Your task to perform on an android device: turn off sleep mode Image 0: 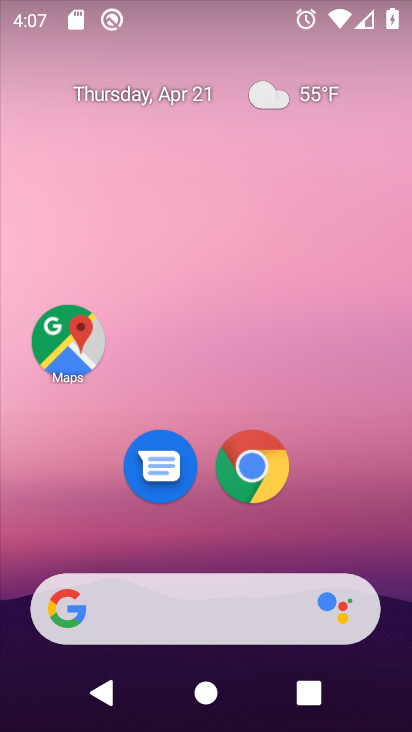
Step 0: drag from (223, 539) to (204, 53)
Your task to perform on an android device: turn off sleep mode Image 1: 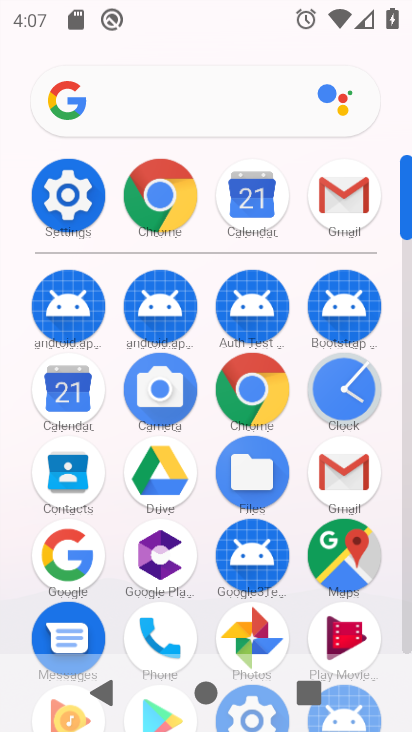
Step 1: click (69, 186)
Your task to perform on an android device: turn off sleep mode Image 2: 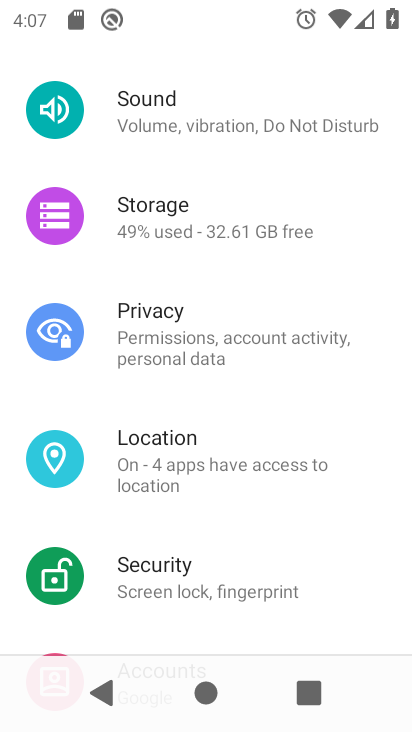
Step 2: drag from (271, 527) to (272, 145)
Your task to perform on an android device: turn off sleep mode Image 3: 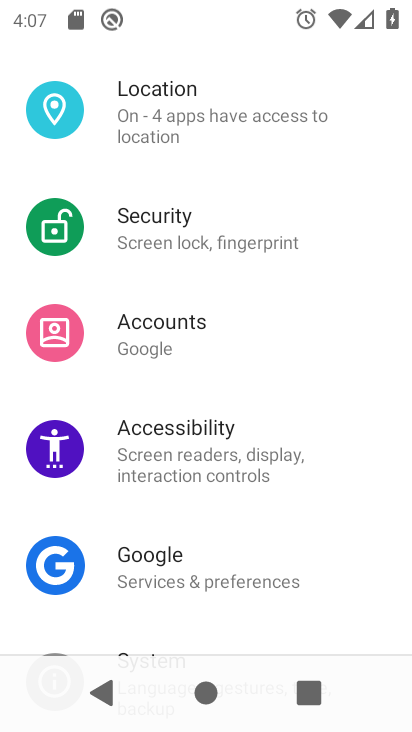
Step 3: drag from (302, 520) to (282, 146)
Your task to perform on an android device: turn off sleep mode Image 4: 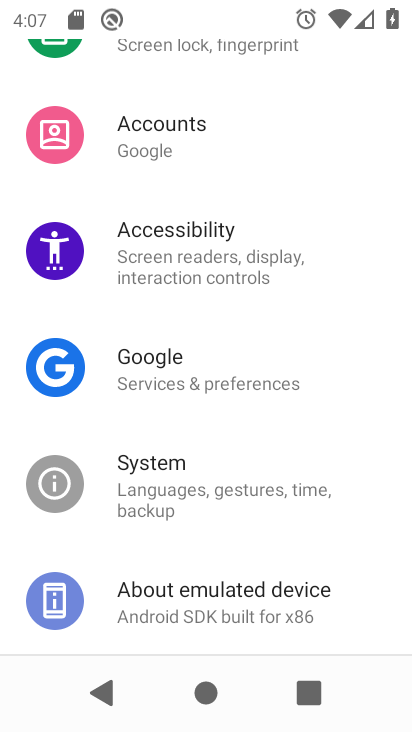
Step 4: drag from (287, 209) to (349, 694)
Your task to perform on an android device: turn off sleep mode Image 5: 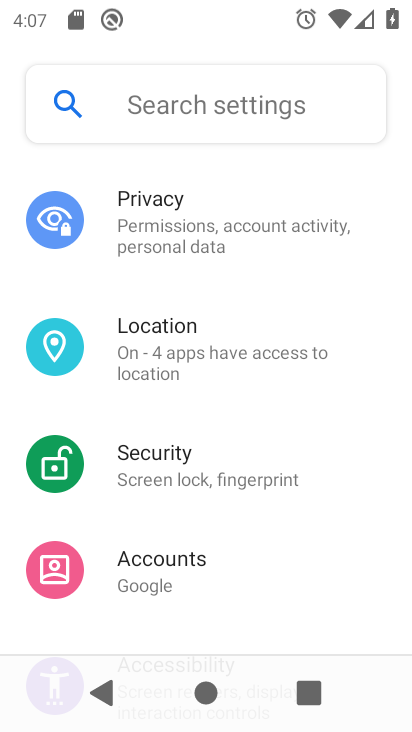
Step 5: drag from (265, 238) to (310, 655)
Your task to perform on an android device: turn off sleep mode Image 6: 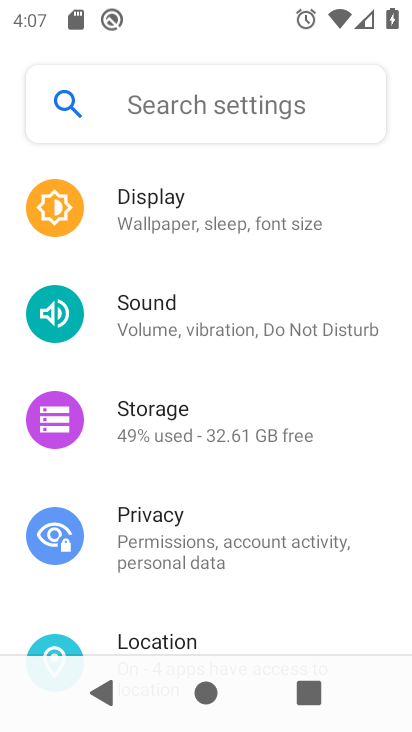
Step 6: click (285, 220)
Your task to perform on an android device: turn off sleep mode Image 7: 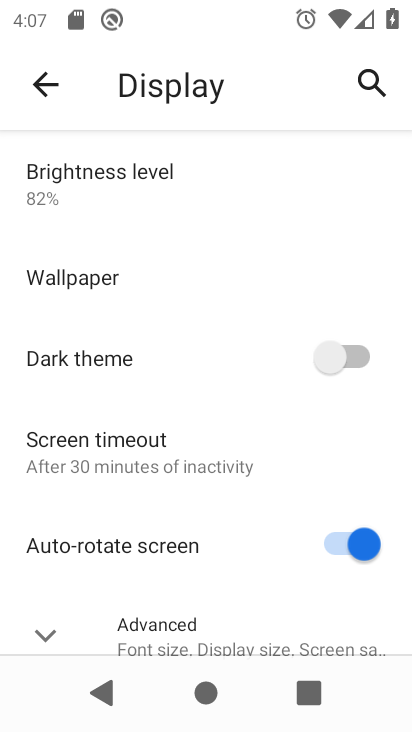
Step 7: click (237, 460)
Your task to perform on an android device: turn off sleep mode Image 8: 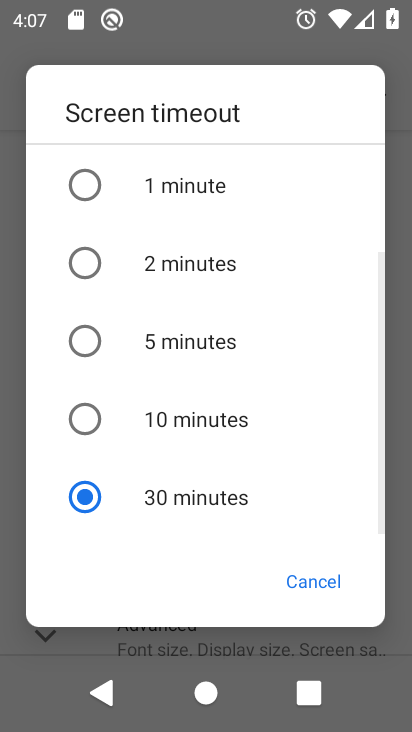
Step 8: task complete